Your task to perform on an android device: Go to wifi settings Image 0: 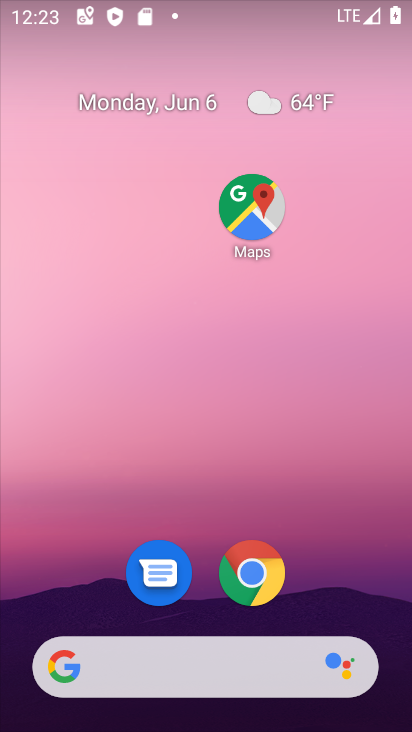
Step 0: drag from (200, 470) to (200, 266)
Your task to perform on an android device: Go to wifi settings Image 1: 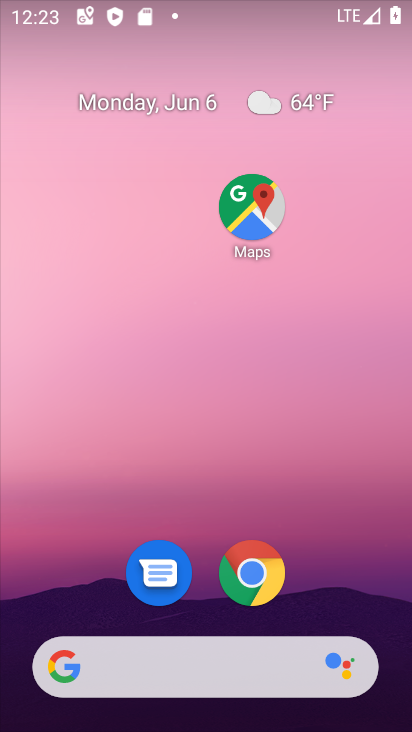
Step 1: drag from (197, 393) to (184, 19)
Your task to perform on an android device: Go to wifi settings Image 2: 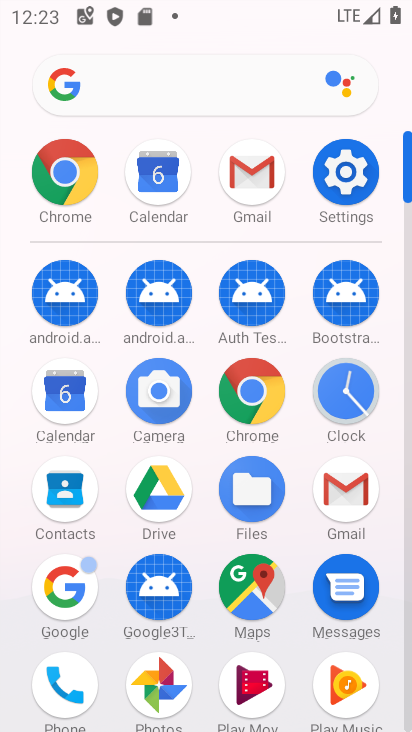
Step 2: drag from (220, 253) to (220, 17)
Your task to perform on an android device: Go to wifi settings Image 3: 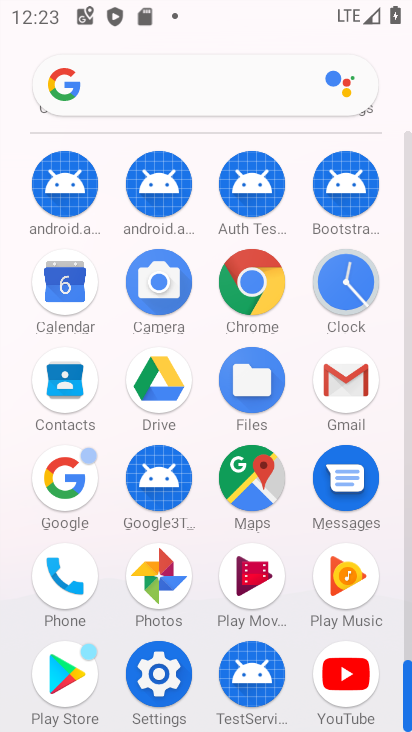
Step 3: click (163, 684)
Your task to perform on an android device: Go to wifi settings Image 4: 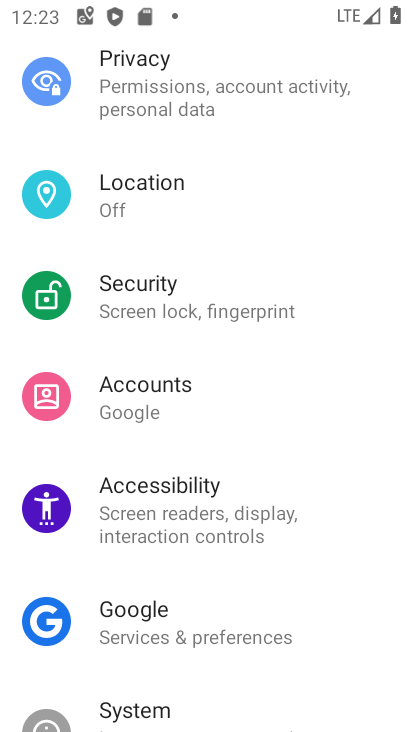
Step 4: drag from (239, 172) to (233, 603)
Your task to perform on an android device: Go to wifi settings Image 5: 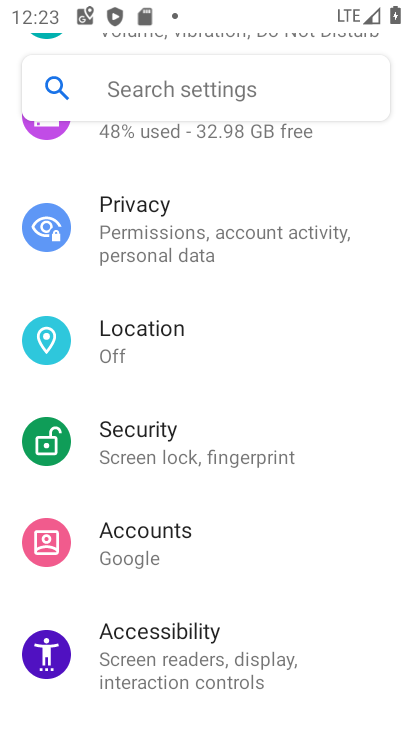
Step 5: drag from (273, 159) to (203, 629)
Your task to perform on an android device: Go to wifi settings Image 6: 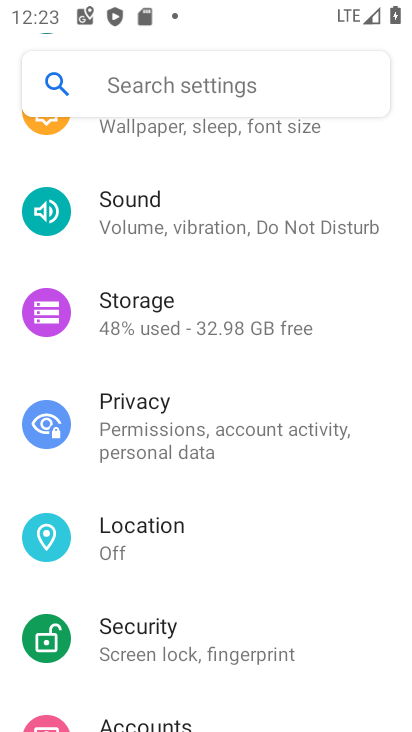
Step 6: drag from (249, 184) to (191, 606)
Your task to perform on an android device: Go to wifi settings Image 7: 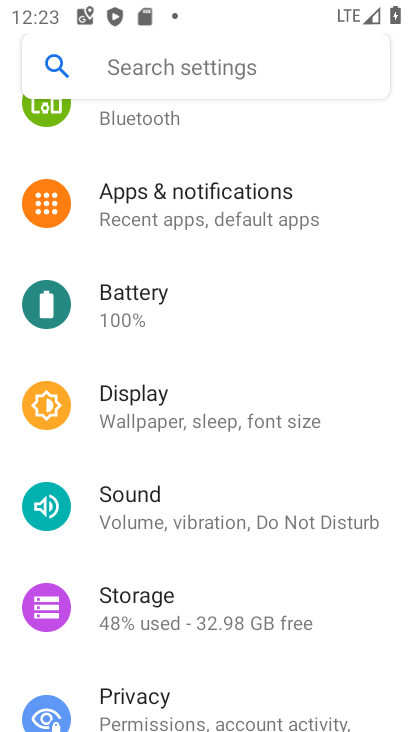
Step 7: drag from (221, 151) to (195, 605)
Your task to perform on an android device: Go to wifi settings Image 8: 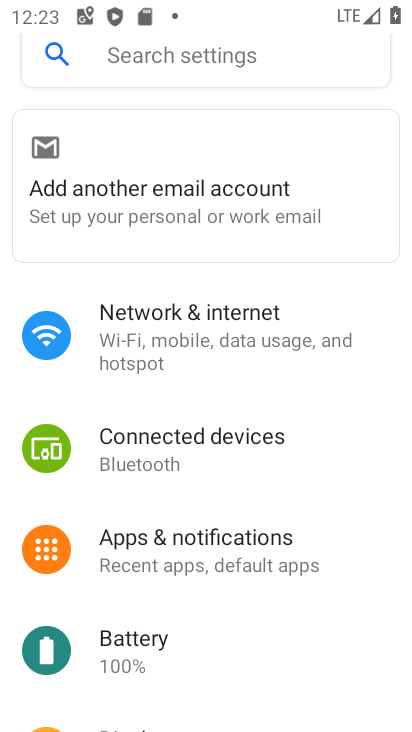
Step 8: click (178, 378)
Your task to perform on an android device: Go to wifi settings Image 9: 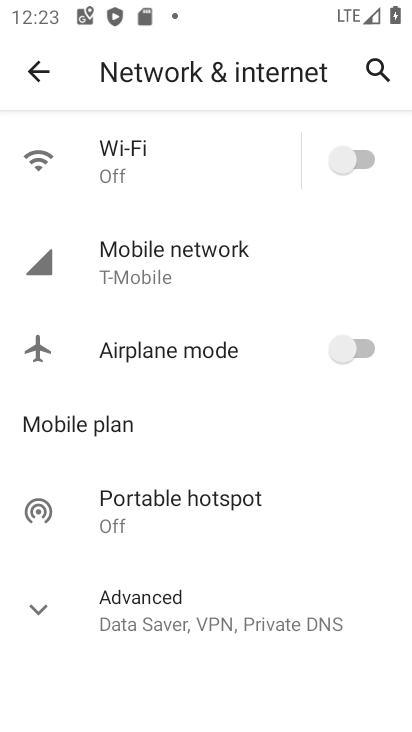
Step 9: click (154, 173)
Your task to perform on an android device: Go to wifi settings Image 10: 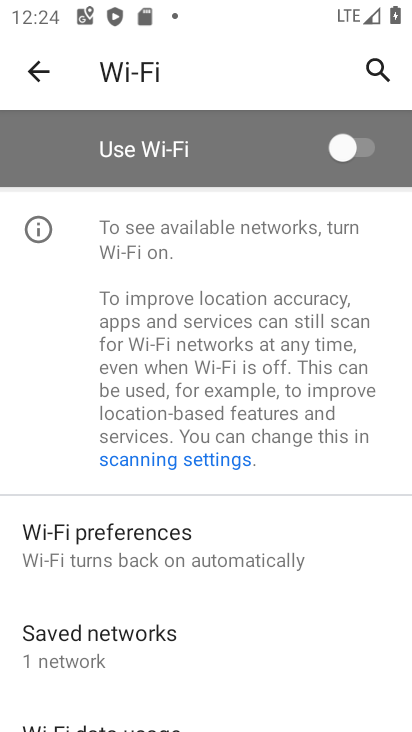
Step 10: task complete